Your task to perform on an android device: see tabs open on other devices in the chrome app Image 0: 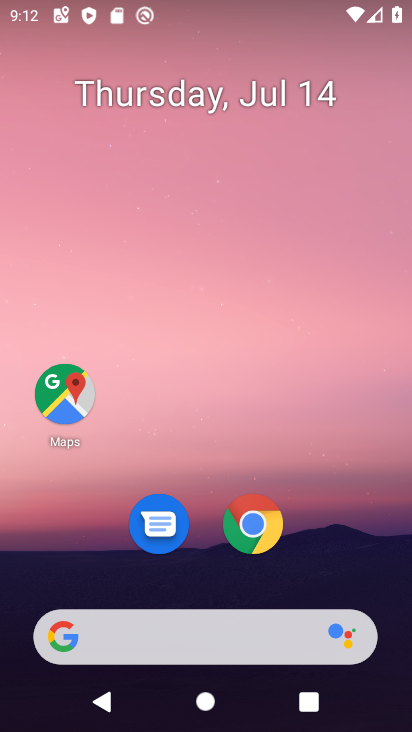
Step 0: click (259, 564)
Your task to perform on an android device: see tabs open on other devices in the chrome app Image 1: 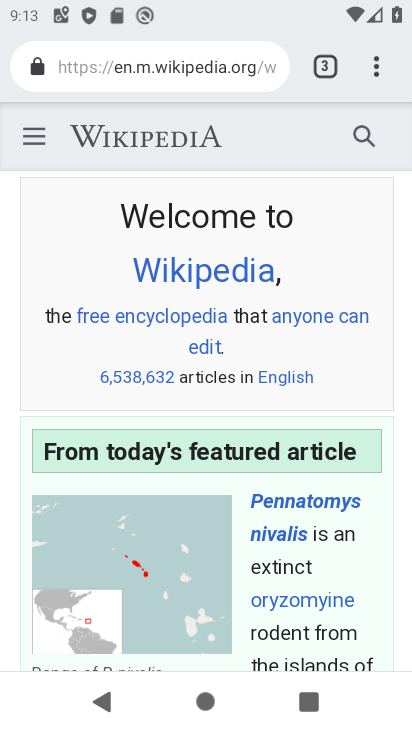
Step 1: click (366, 65)
Your task to perform on an android device: see tabs open on other devices in the chrome app Image 2: 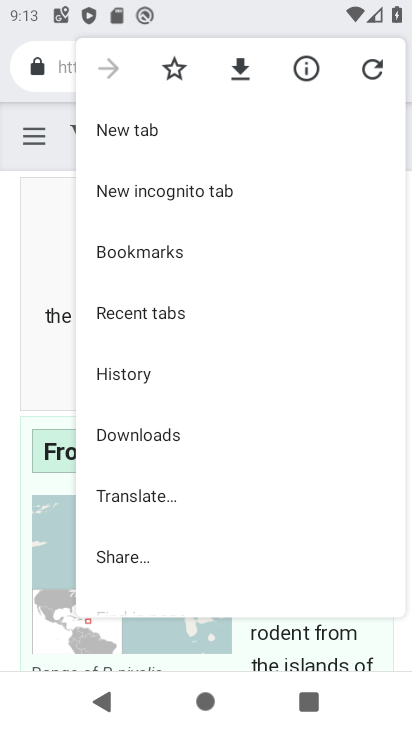
Step 2: click (169, 306)
Your task to perform on an android device: see tabs open on other devices in the chrome app Image 3: 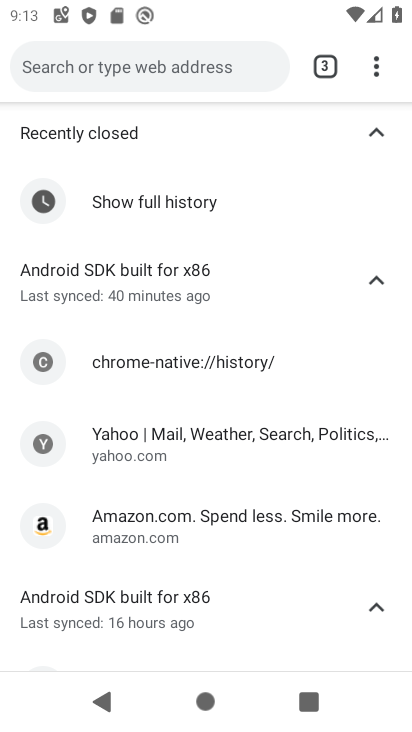
Step 3: task complete